Your task to perform on an android device: toggle improve location accuracy Image 0: 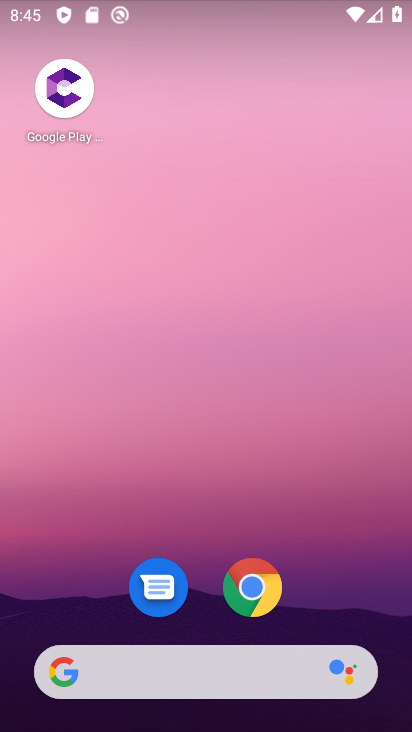
Step 0: drag from (264, 281) to (306, 107)
Your task to perform on an android device: toggle improve location accuracy Image 1: 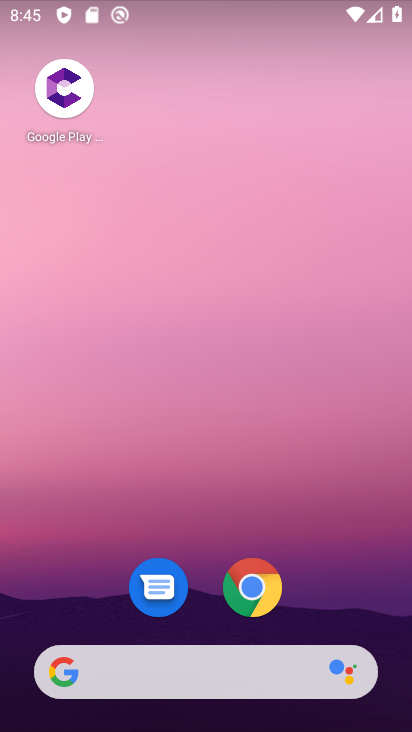
Step 1: drag from (178, 520) to (268, 78)
Your task to perform on an android device: toggle improve location accuracy Image 2: 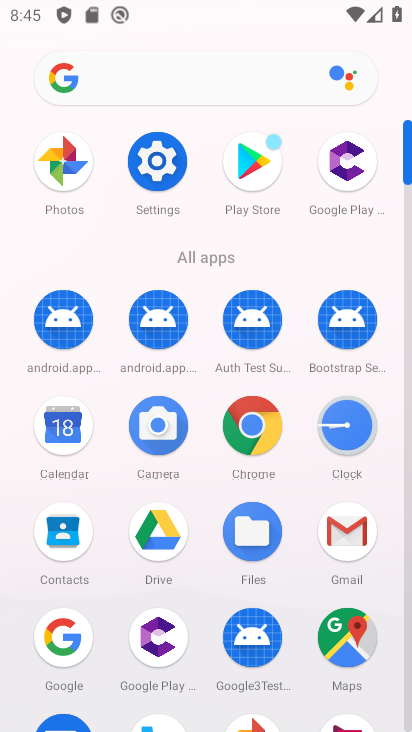
Step 2: drag from (213, 598) to (325, 199)
Your task to perform on an android device: toggle improve location accuracy Image 3: 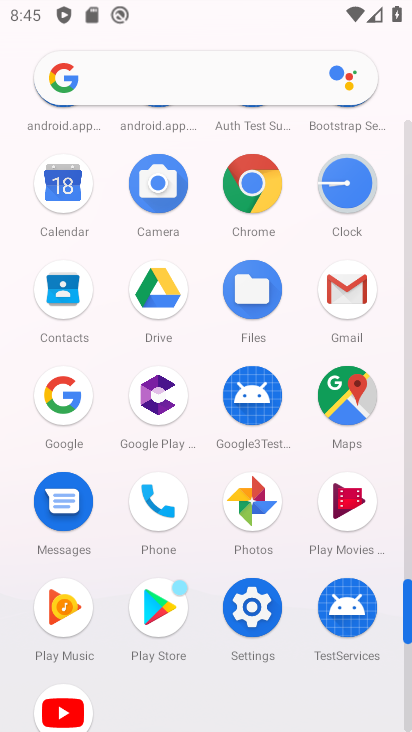
Step 3: click (258, 615)
Your task to perform on an android device: toggle improve location accuracy Image 4: 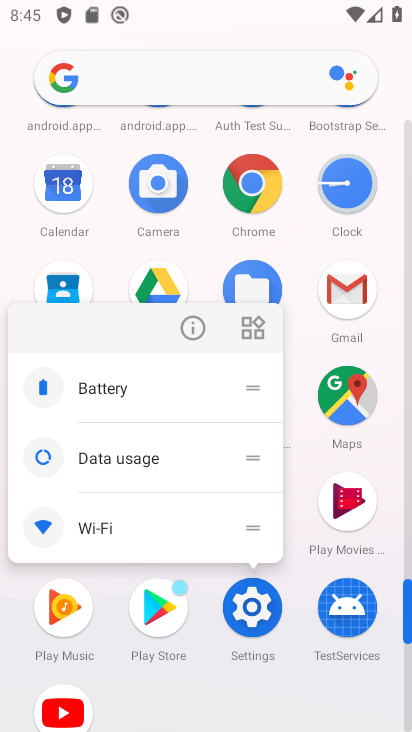
Step 4: click (250, 607)
Your task to perform on an android device: toggle improve location accuracy Image 5: 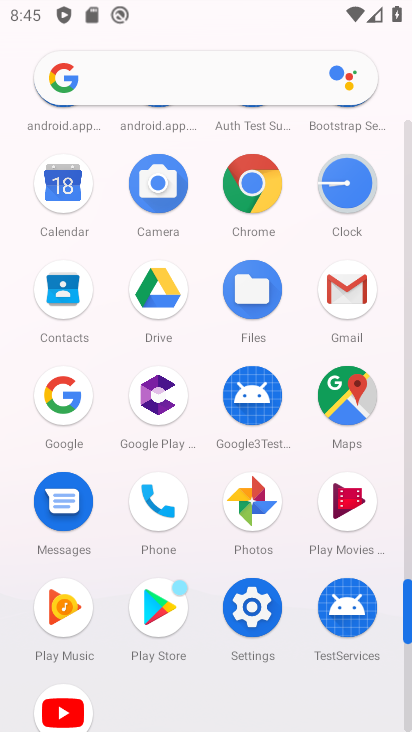
Step 5: click (255, 597)
Your task to perform on an android device: toggle improve location accuracy Image 6: 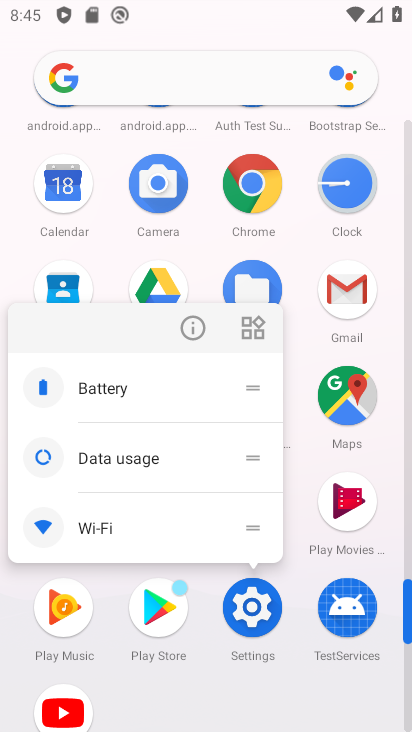
Step 6: click (258, 609)
Your task to perform on an android device: toggle improve location accuracy Image 7: 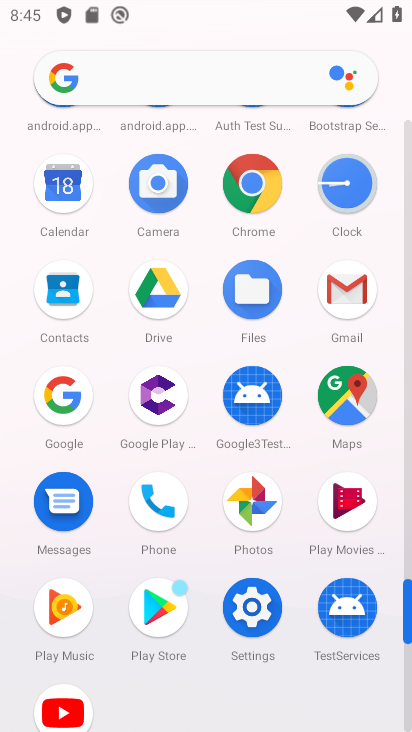
Step 7: click (242, 610)
Your task to perform on an android device: toggle improve location accuracy Image 8: 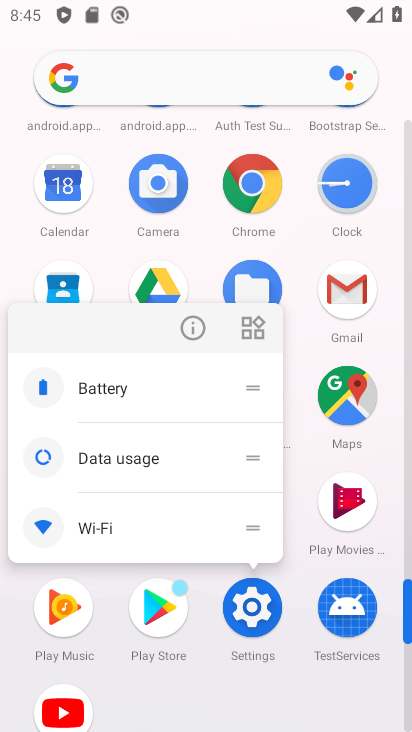
Step 8: click (243, 596)
Your task to perform on an android device: toggle improve location accuracy Image 9: 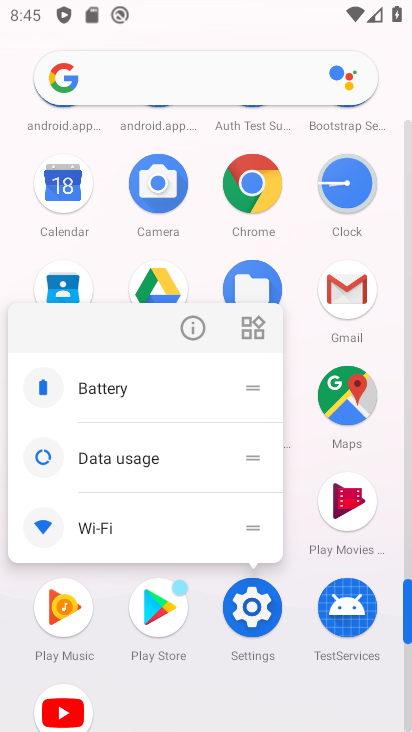
Step 9: click (257, 596)
Your task to perform on an android device: toggle improve location accuracy Image 10: 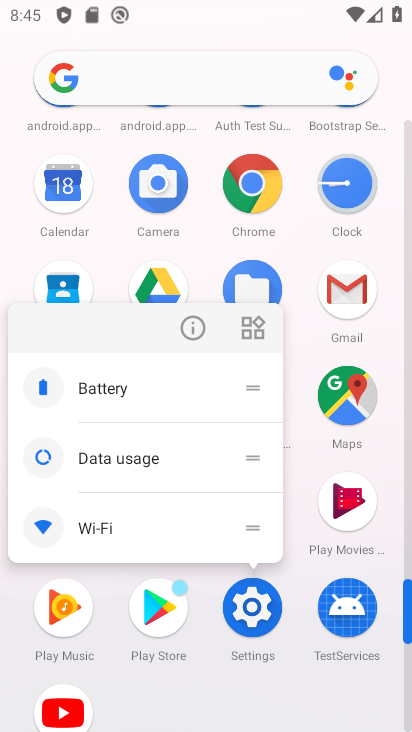
Step 10: click (253, 616)
Your task to perform on an android device: toggle improve location accuracy Image 11: 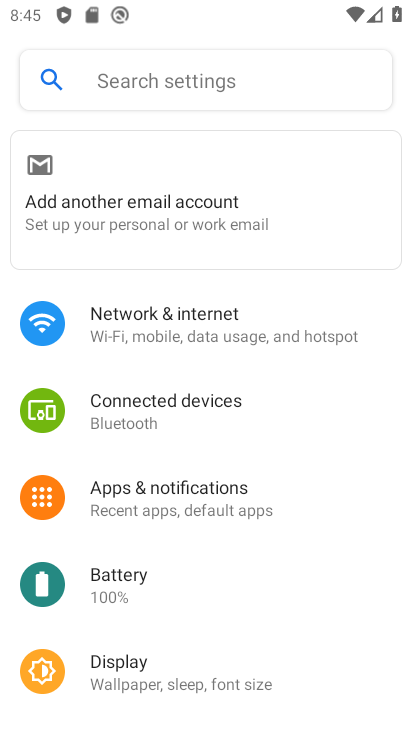
Step 11: drag from (248, 634) to (370, 227)
Your task to perform on an android device: toggle improve location accuracy Image 12: 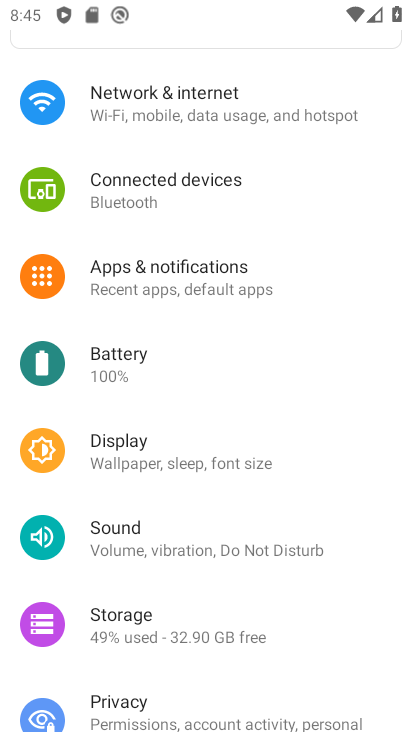
Step 12: drag from (238, 590) to (326, 259)
Your task to perform on an android device: toggle improve location accuracy Image 13: 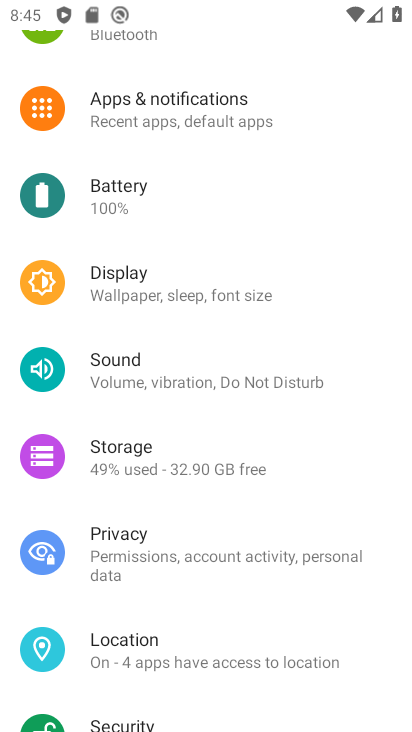
Step 13: drag from (203, 497) to (267, 280)
Your task to perform on an android device: toggle improve location accuracy Image 14: 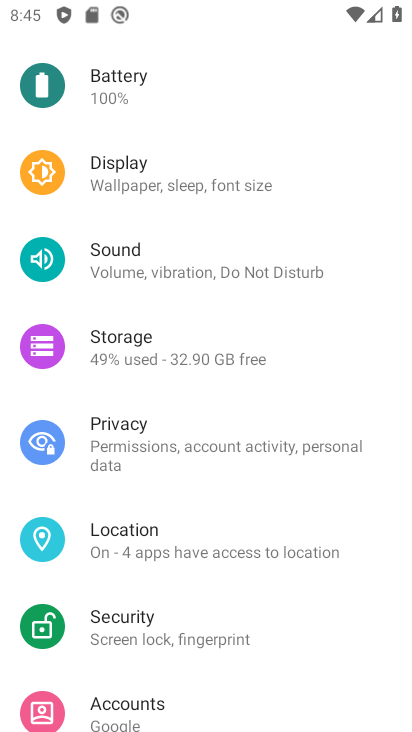
Step 14: click (145, 555)
Your task to perform on an android device: toggle improve location accuracy Image 15: 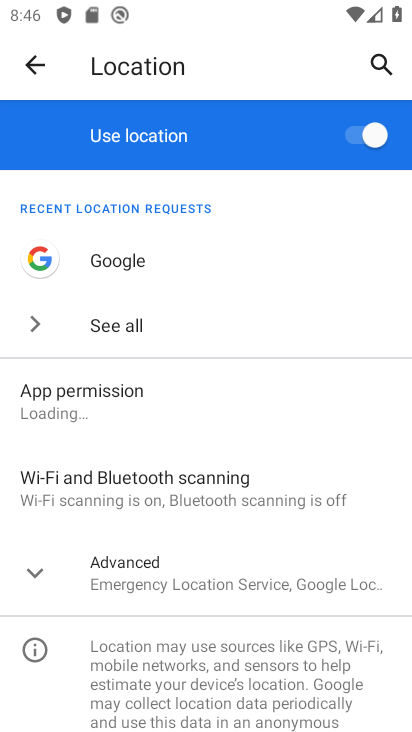
Step 15: click (263, 589)
Your task to perform on an android device: toggle improve location accuracy Image 16: 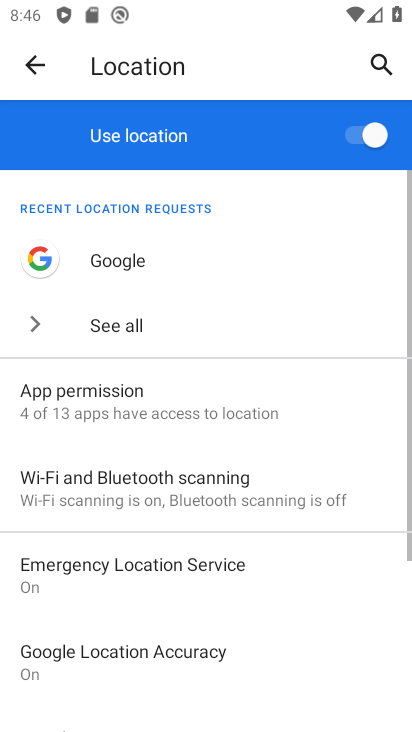
Step 16: drag from (203, 690) to (285, 280)
Your task to perform on an android device: toggle improve location accuracy Image 17: 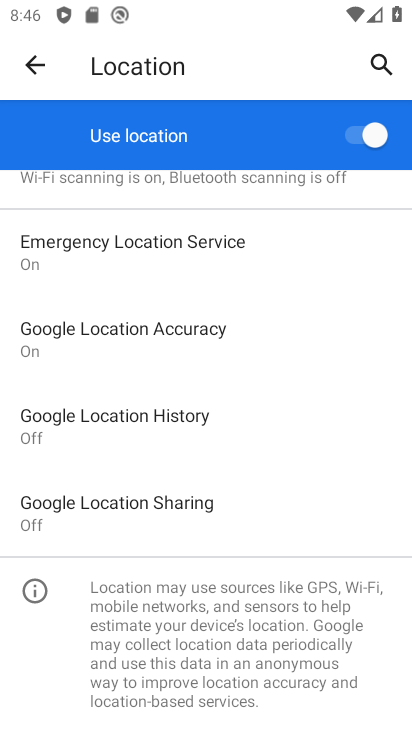
Step 17: click (208, 351)
Your task to perform on an android device: toggle improve location accuracy Image 18: 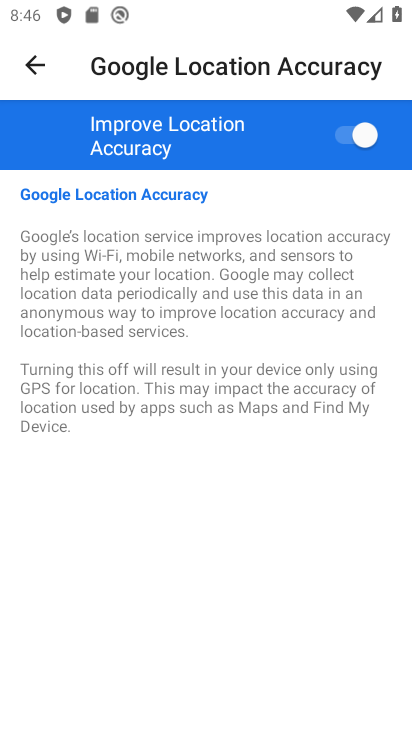
Step 18: click (338, 137)
Your task to perform on an android device: toggle improve location accuracy Image 19: 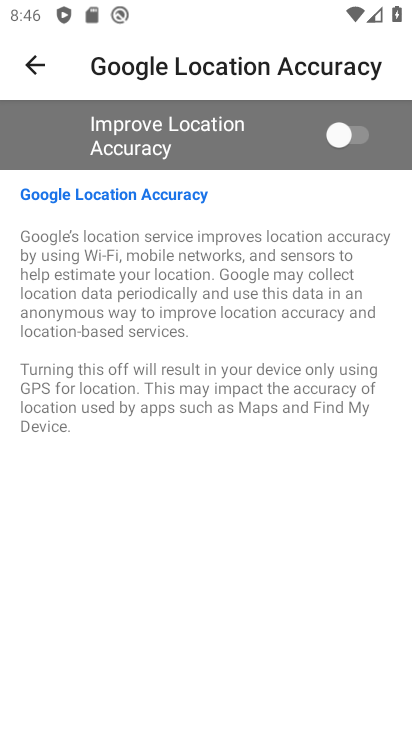
Step 19: task complete